Your task to perform on an android device: turn on sleep mode Image 0: 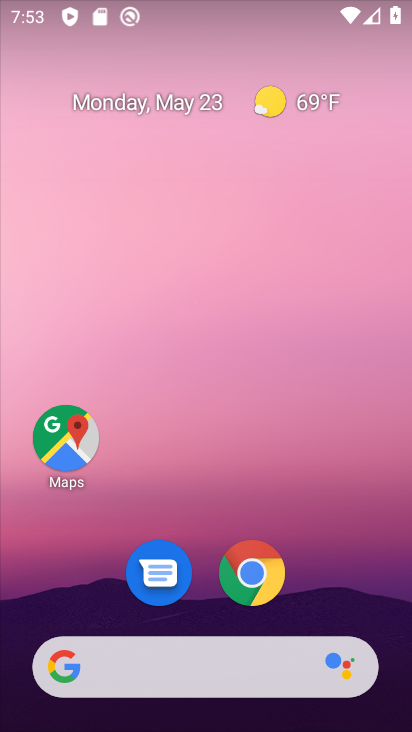
Step 0: drag from (207, 601) to (240, 185)
Your task to perform on an android device: turn on sleep mode Image 1: 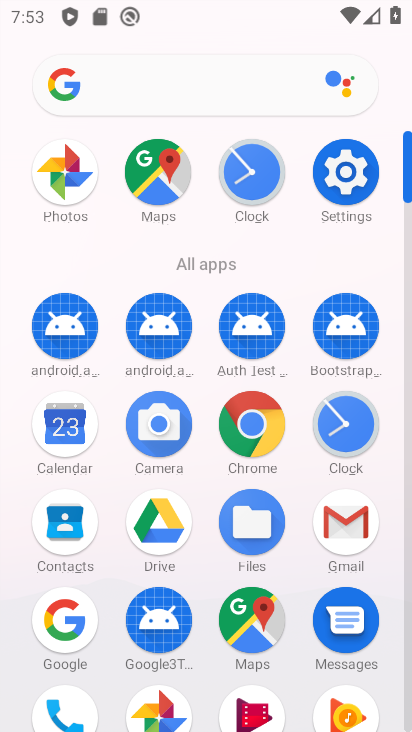
Step 1: click (338, 150)
Your task to perform on an android device: turn on sleep mode Image 2: 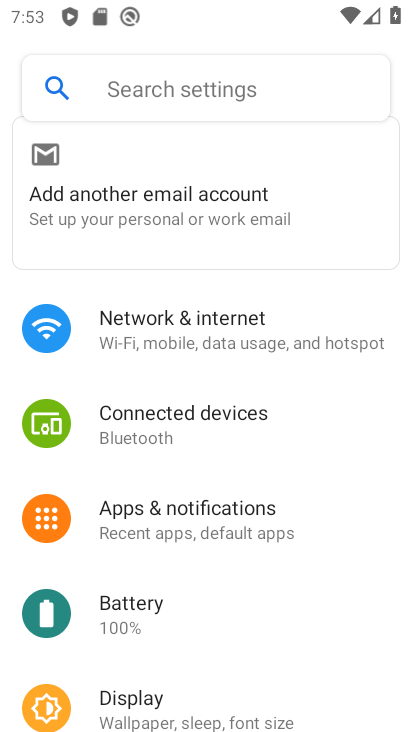
Step 2: drag from (254, 571) to (278, 122)
Your task to perform on an android device: turn on sleep mode Image 3: 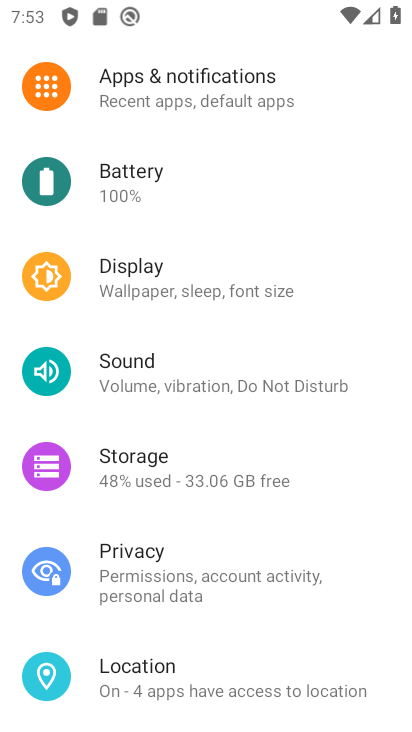
Step 3: click (201, 279)
Your task to perform on an android device: turn on sleep mode Image 4: 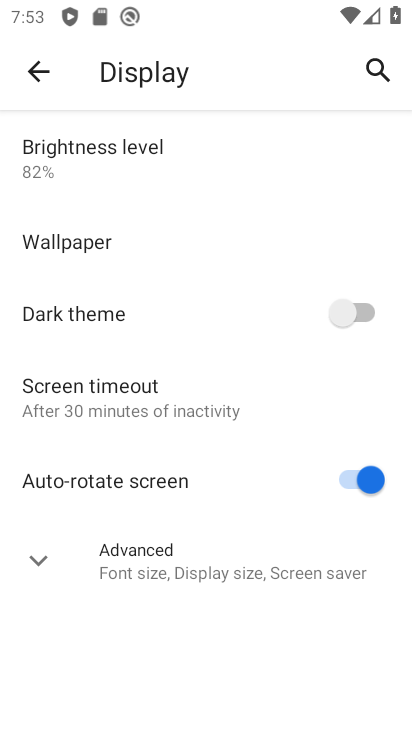
Step 4: click (83, 383)
Your task to perform on an android device: turn on sleep mode Image 5: 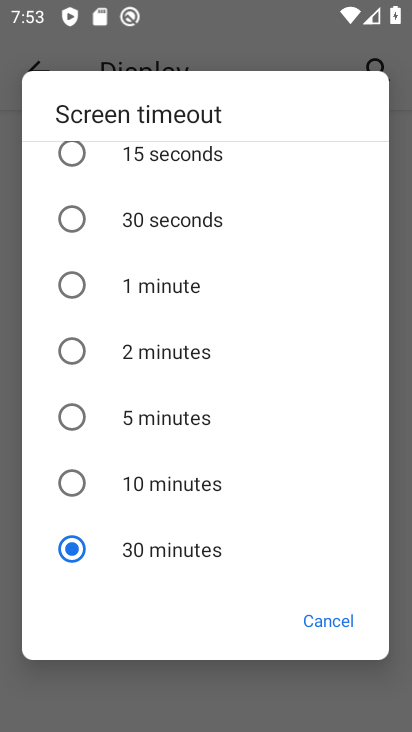
Step 5: task complete